Your task to perform on an android device: turn off picture-in-picture Image 0: 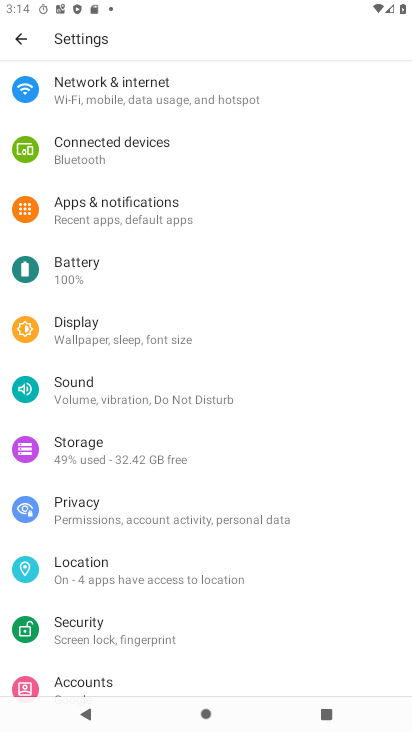
Step 0: press home button
Your task to perform on an android device: turn off picture-in-picture Image 1: 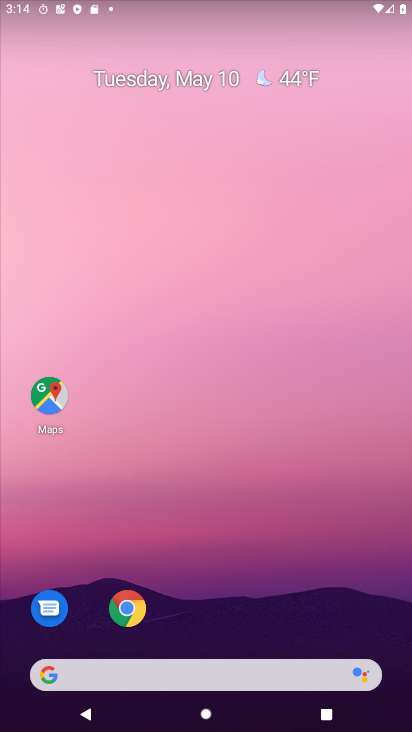
Step 1: click (132, 614)
Your task to perform on an android device: turn off picture-in-picture Image 2: 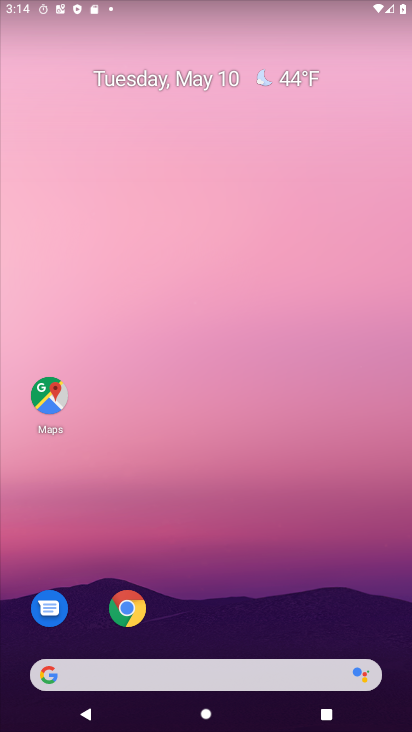
Step 2: click (210, 482)
Your task to perform on an android device: turn off picture-in-picture Image 3: 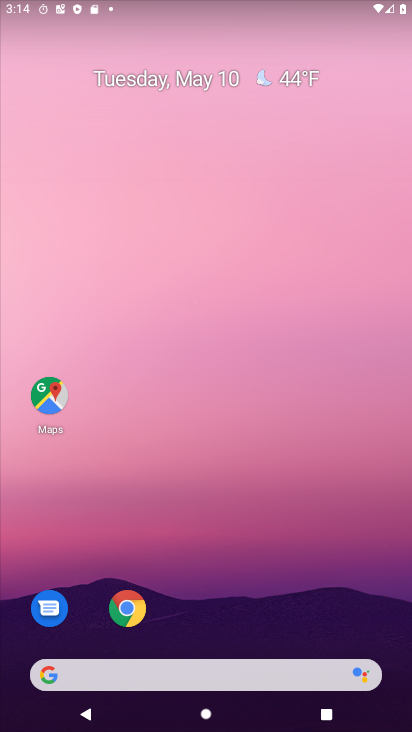
Step 3: click (131, 613)
Your task to perform on an android device: turn off picture-in-picture Image 4: 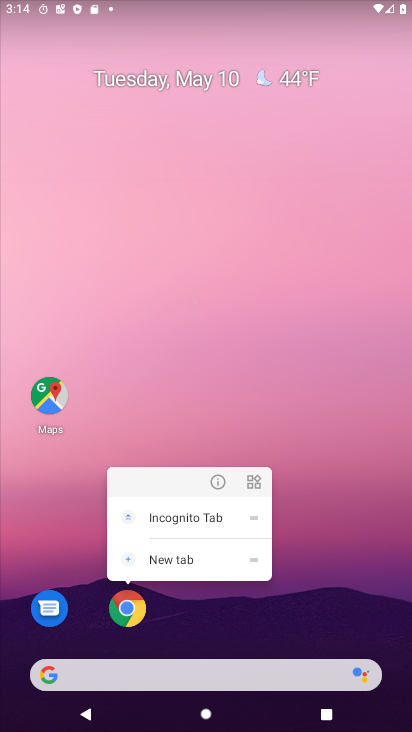
Step 4: click (218, 479)
Your task to perform on an android device: turn off picture-in-picture Image 5: 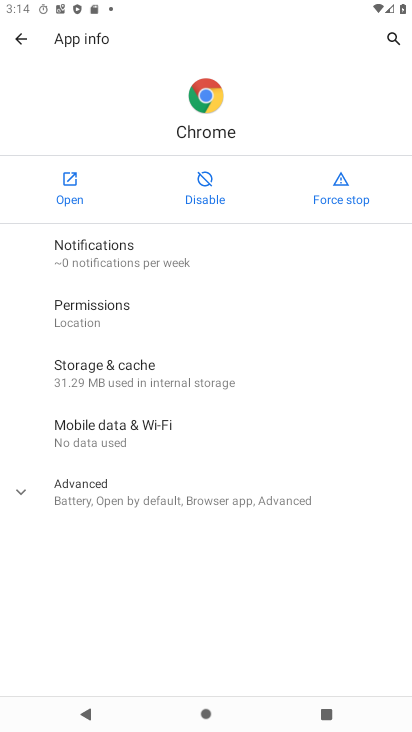
Step 5: click (36, 500)
Your task to perform on an android device: turn off picture-in-picture Image 6: 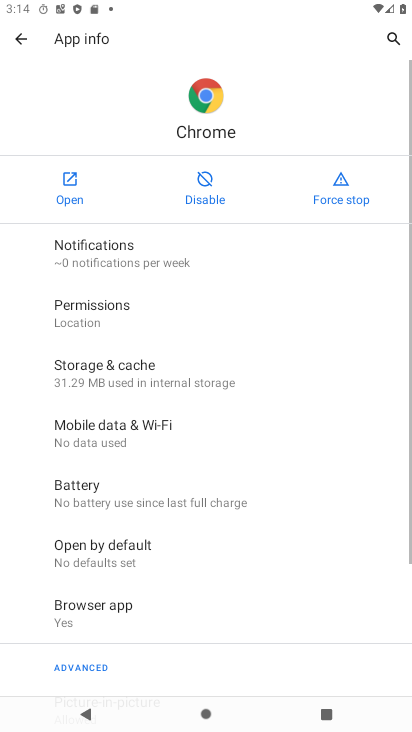
Step 6: drag from (143, 611) to (180, 322)
Your task to perform on an android device: turn off picture-in-picture Image 7: 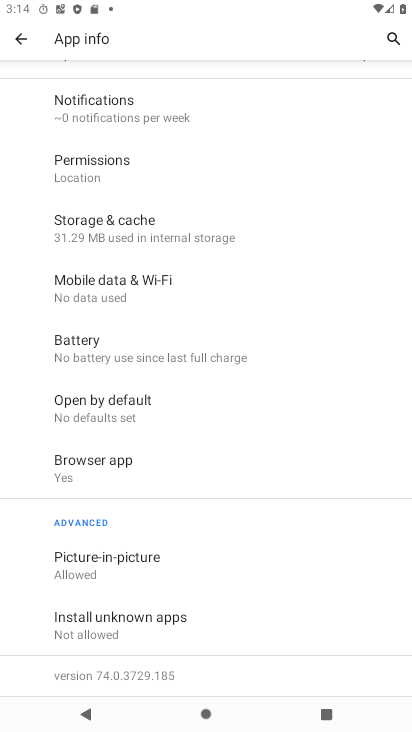
Step 7: click (103, 561)
Your task to perform on an android device: turn off picture-in-picture Image 8: 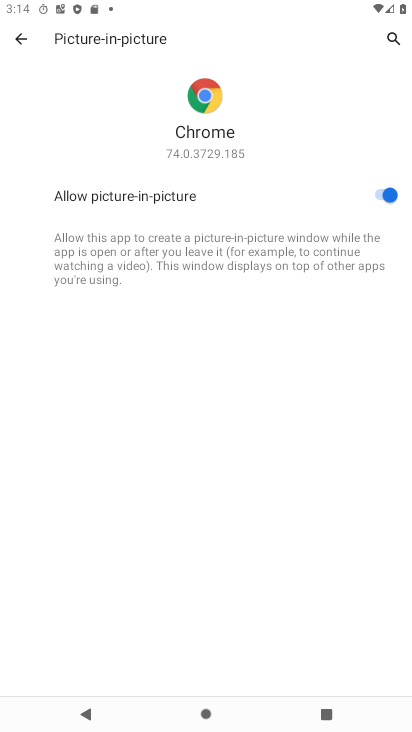
Step 8: click (386, 190)
Your task to perform on an android device: turn off picture-in-picture Image 9: 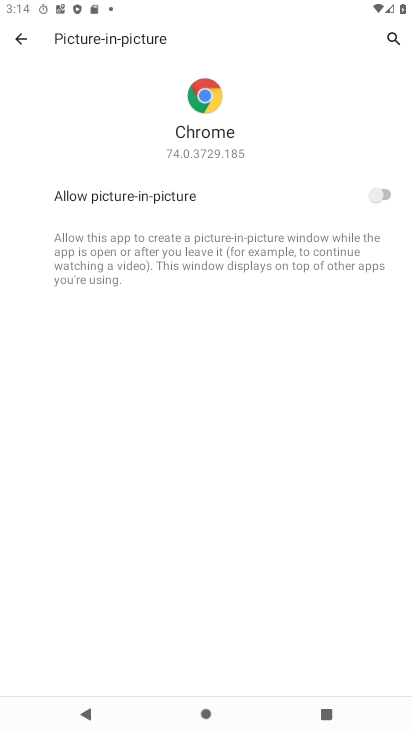
Step 9: task complete